Your task to perform on an android device: Open sound settings Image 0: 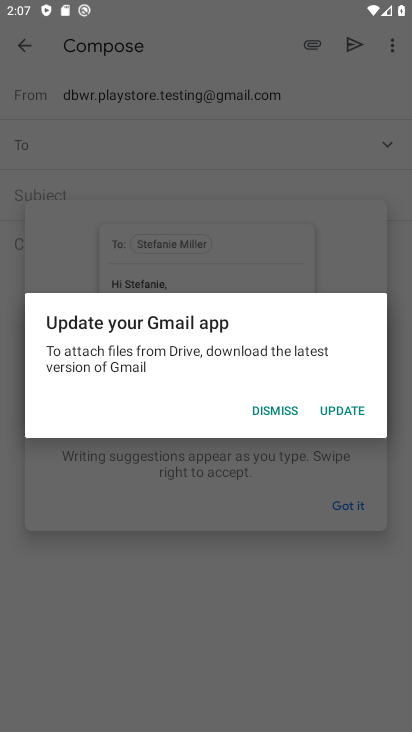
Step 0: press home button
Your task to perform on an android device: Open sound settings Image 1: 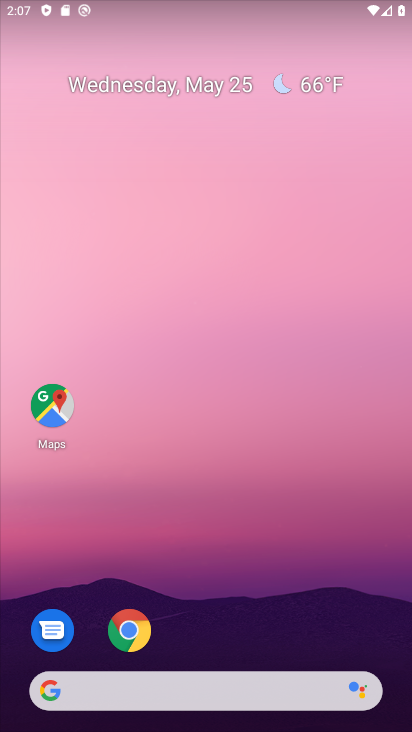
Step 1: drag from (235, 625) to (250, 84)
Your task to perform on an android device: Open sound settings Image 2: 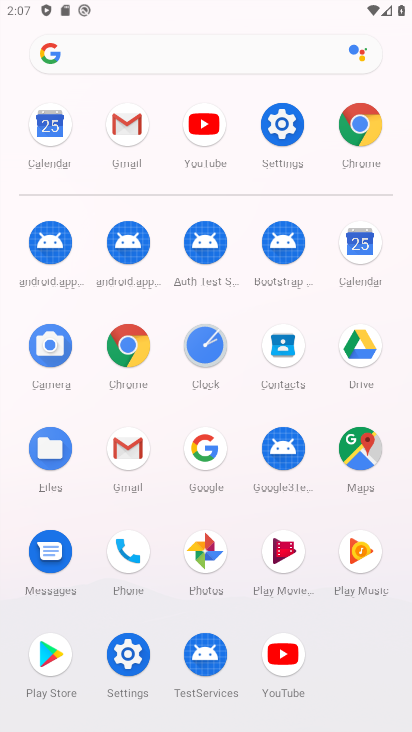
Step 2: click (278, 122)
Your task to perform on an android device: Open sound settings Image 3: 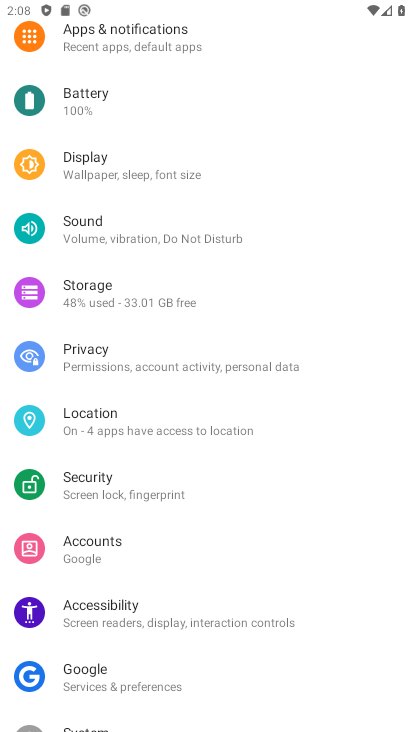
Step 3: click (111, 223)
Your task to perform on an android device: Open sound settings Image 4: 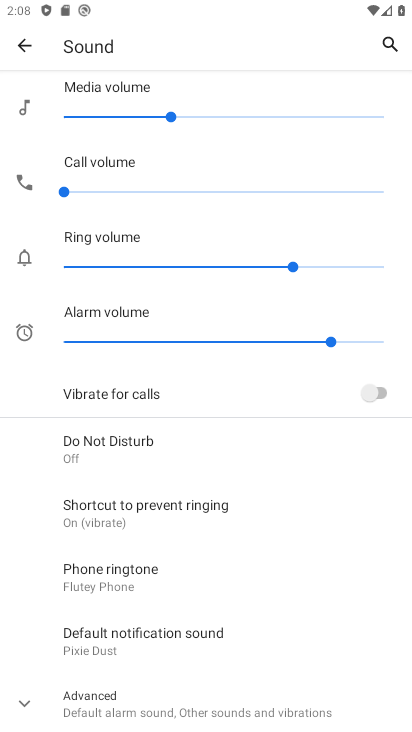
Step 4: drag from (230, 655) to (239, 188)
Your task to perform on an android device: Open sound settings Image 5: 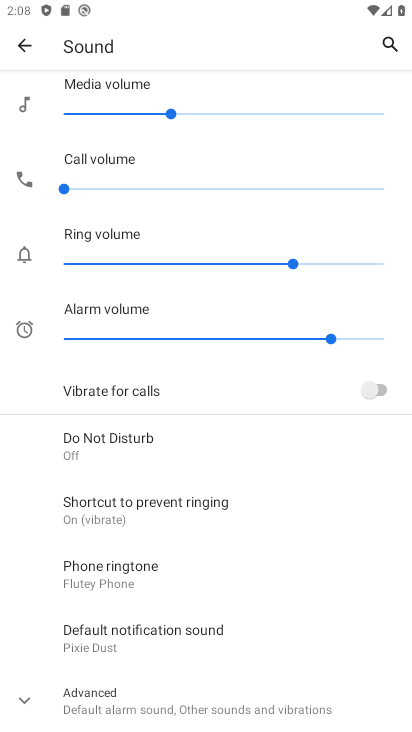
Step 5: click (30, 691)
Your task to perform on an android device: Open sound settings Image 6: 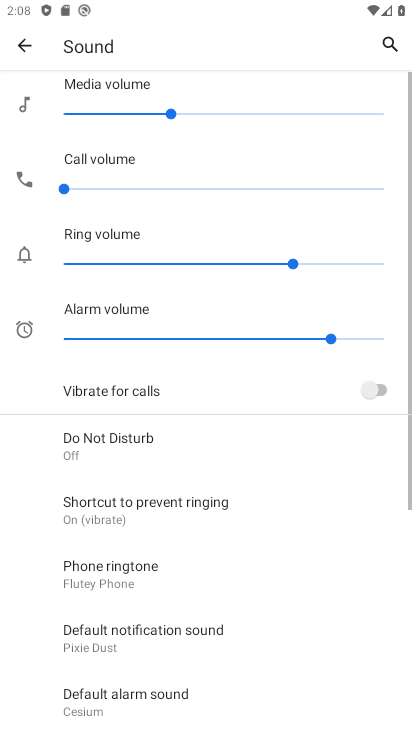
Step 6: task complete